Your task to perform on an android device: read, delete, or share a saved page in the chrome app Image 0: 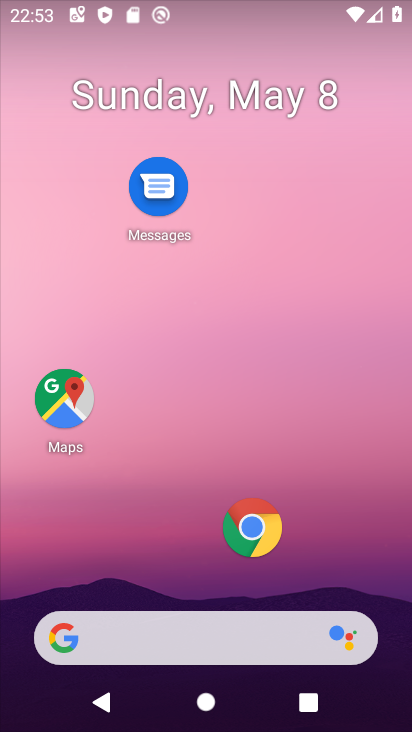
Step 0: click (246, 531)
Your task to perform on an android device: read, delete, or share a saved page in the chrome app Image 1: 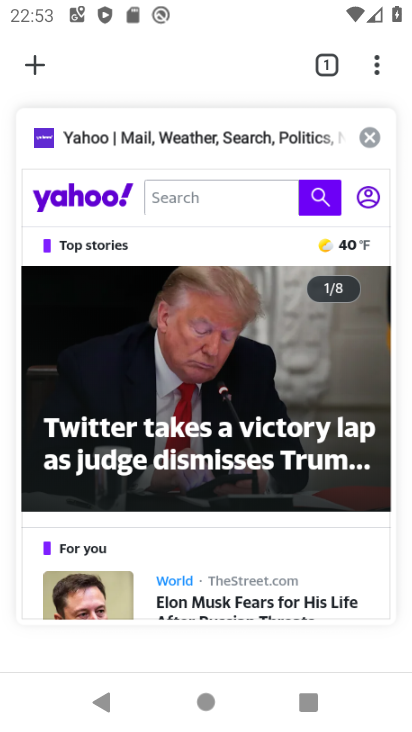
Step 1: press back button
Your task to perform on an android device: read, delete, or share a saved page in the chrome app Image 2: 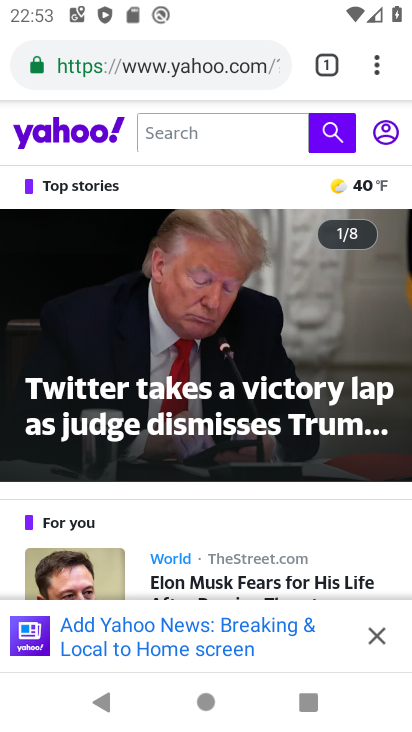
Step 2: click (366, 64)
Your task to perform on an android device: read, delete, or share a saved page in the chrome app Image 3: 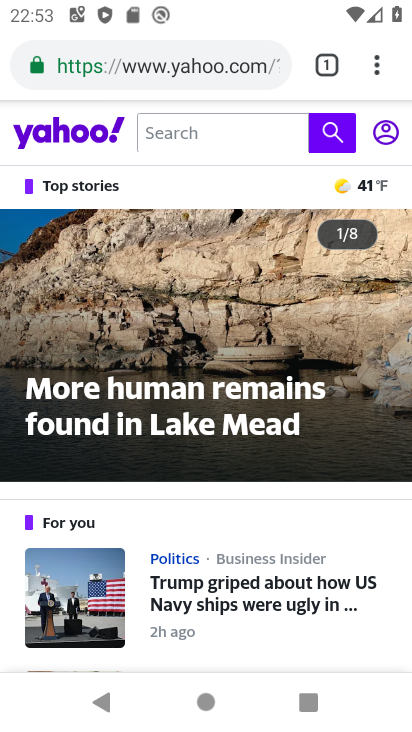
Step 3: click (369, 65)
Your task to perform on an android device: read, delete, or share a saved page in the chrome app Image 4: 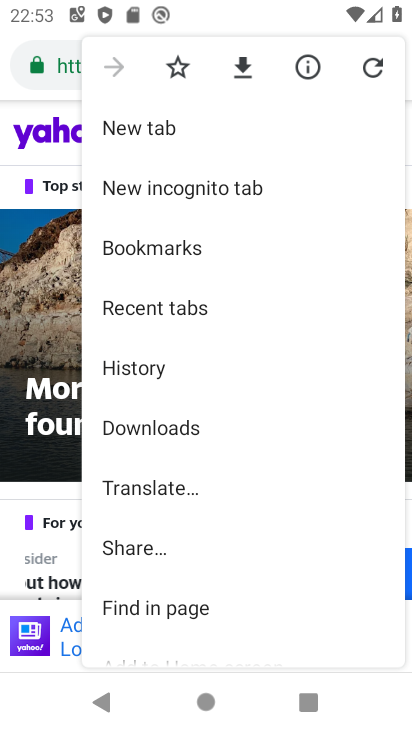
Step 4: click (166, 434)
Your task to perform on an android device: read, delete, or share a saved page in the chrome app Image 5: 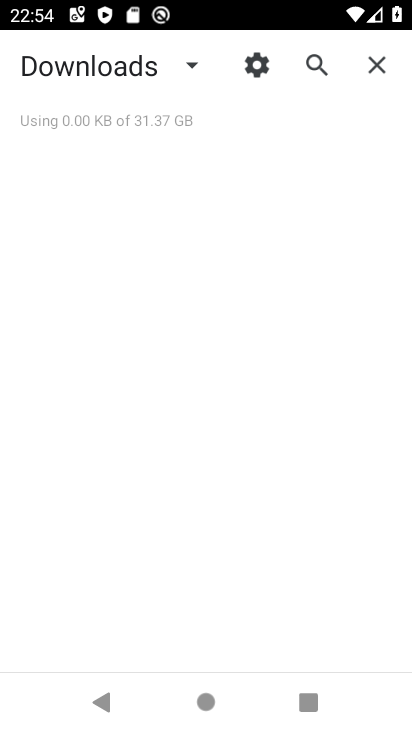
Step 5: task complete